Your task to perform on an android device: change your default location settings in chrome Image 0: 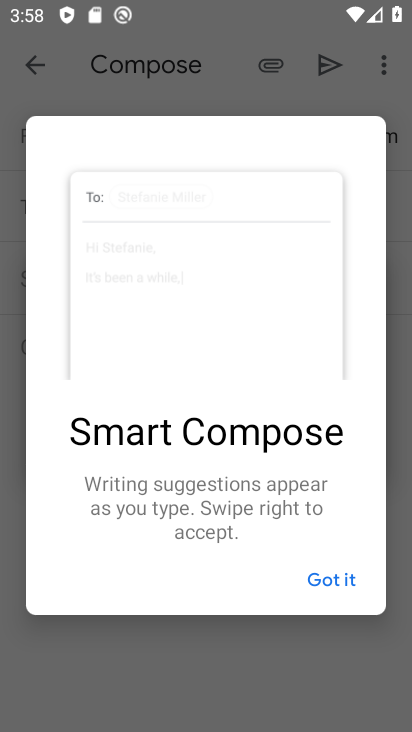
Step 0: press home button
Your task to perform on an android device: change your default location settings in chrome Image 1: 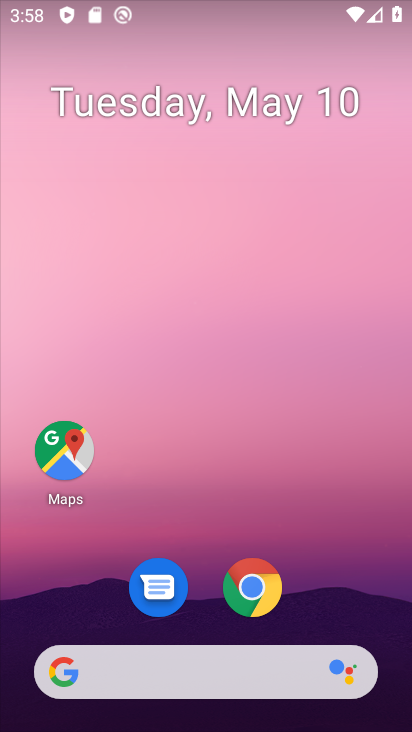
Step 1: drag from (249, 715) to (308, 260)
Your task to perform on an android device: change your default location settings in chrome Image 2: 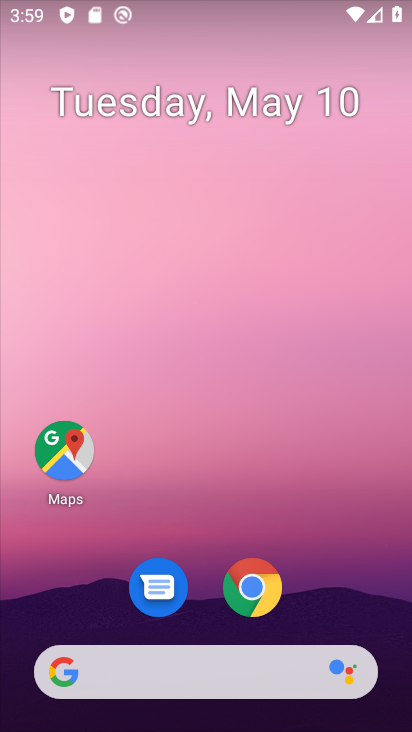
Step 2: drag from (269, 642) to (363, 133)
Your task to perform on an android device: change your default location settings in chrome Image 3: 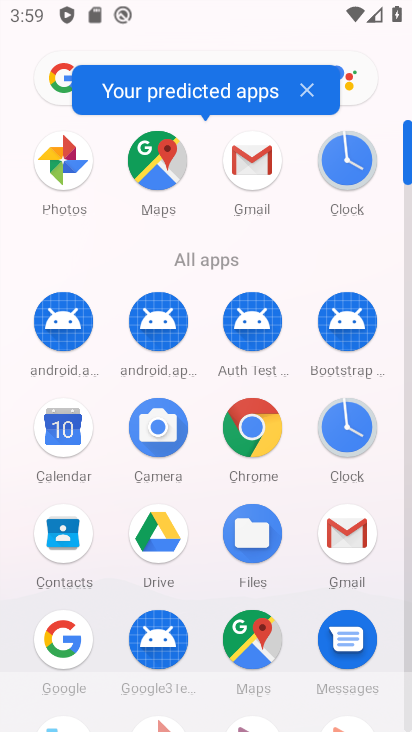
Step 3: click (235, 425)
Your task to perform on an android device: change your default location settings in chrome Image 4: 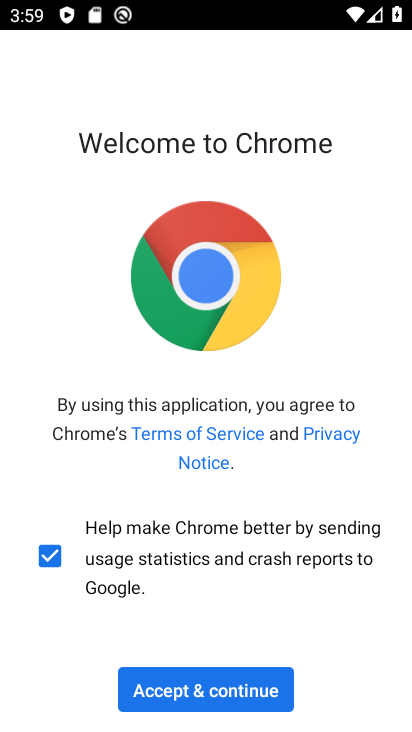
Step 4: click (239, 675)
Your task to perform on an android device: change your default location settings in chrome Image 5: 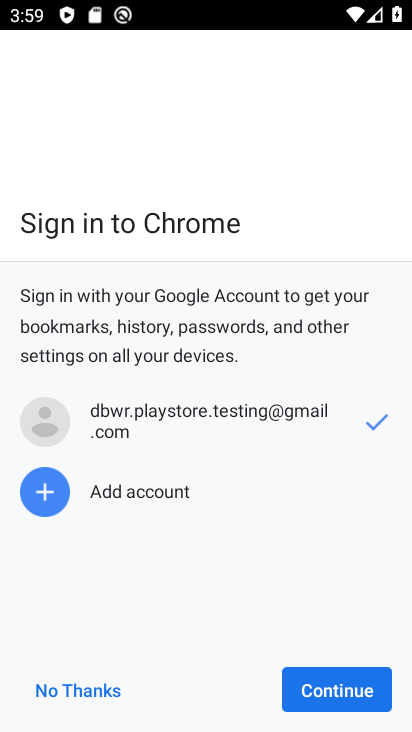
Step 5: click (314, 685)
Your task to perform on an android device: change your default location settings in chrome Image 6: 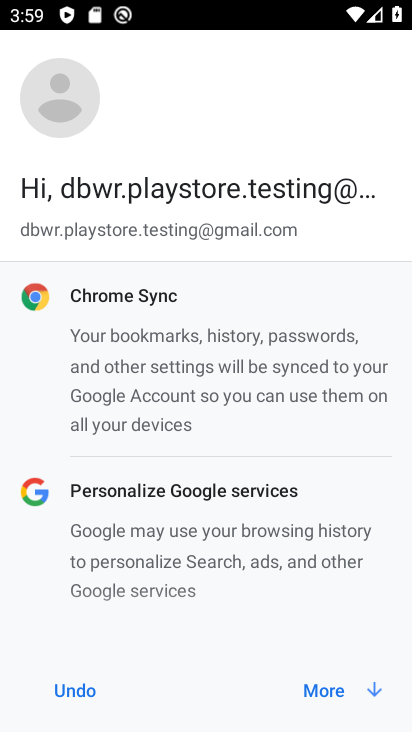
Step 6: click (366, 692)
Your task to perform on an android device: change your default location settings in chrome Image 7: 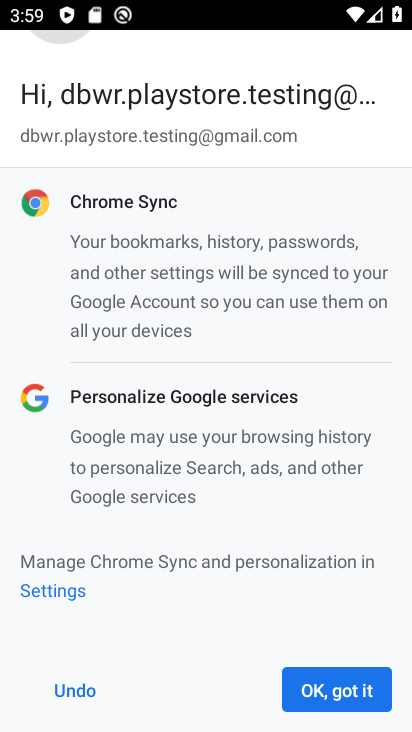
Step 7: click (357, 682)
Your task to perform on an android device: change your default location settings in chrome Image 8: 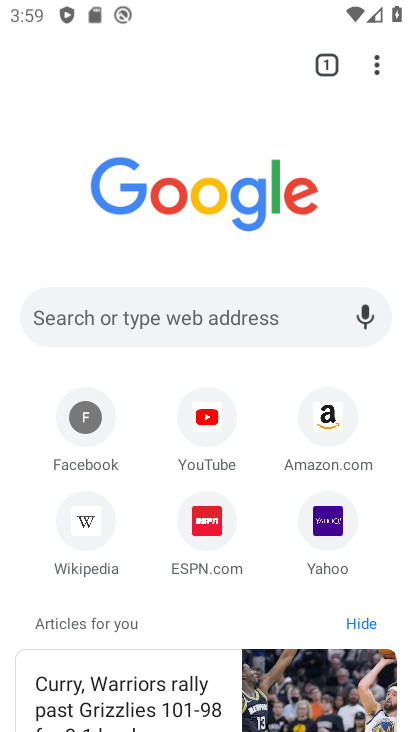
Step 8: click (369, 80)
Your task to perform on an android device: change your default location settings in chrome Image 9: 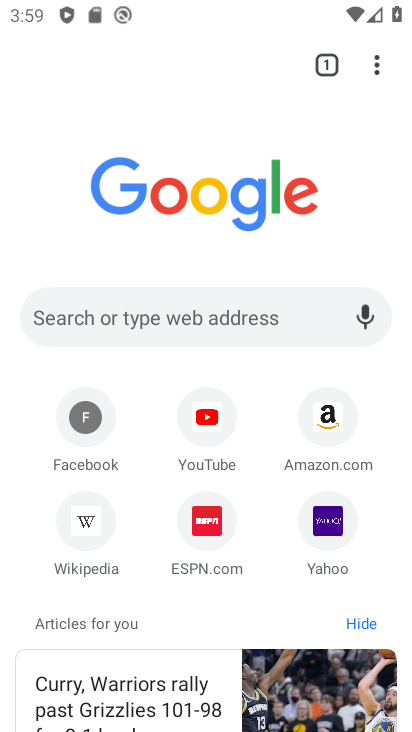
Step 9: click (370, 76)
Your task to perform on an android device: change your default location settings in chrome Image 10: 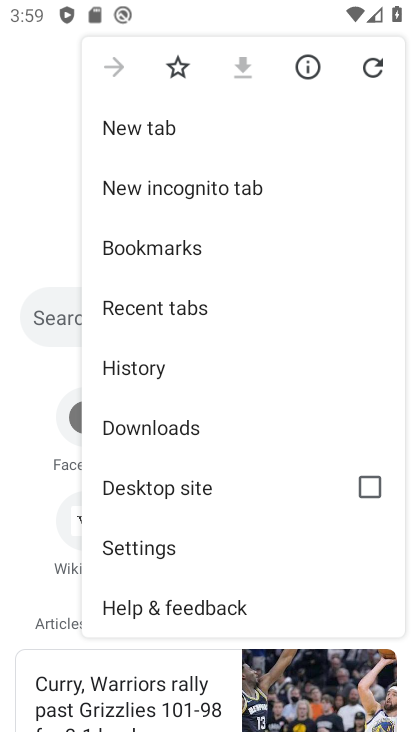
Step 10: click (132, 553)
Your task to perform on an android device: change your default location settings in chrome Image 11: 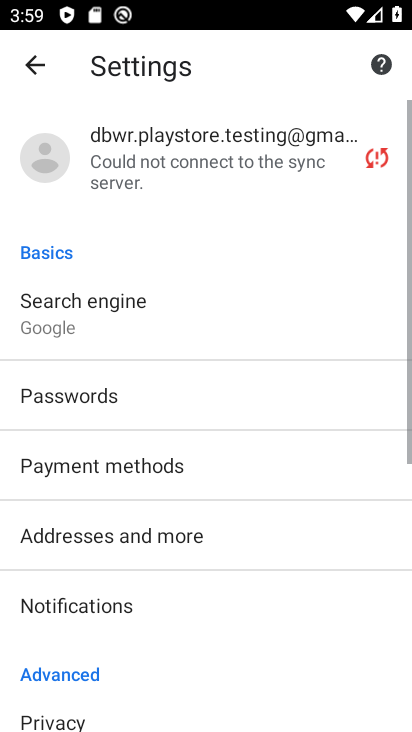
Step 11: drag from (161, 528) to (246, 177)
Your task to perform on an android device: change your default location settings in chrome Image 12: 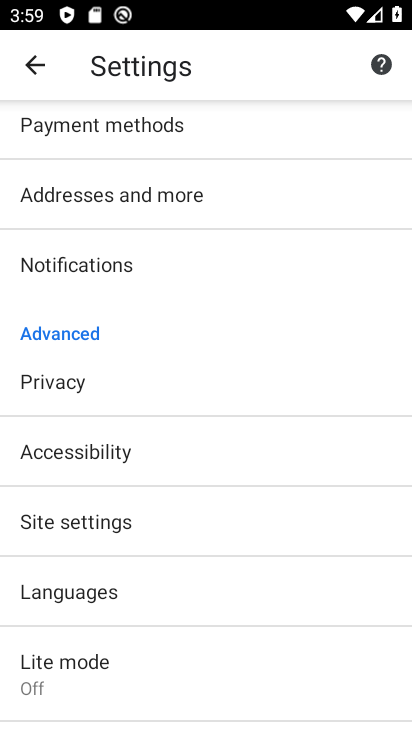
Step 12: click (123, 519)
Your task to perform on an android device: change your default location settings in chrome Image 13: 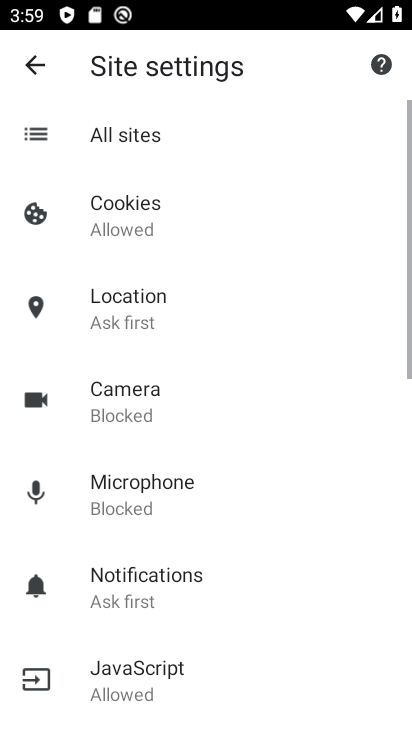
Step 13: click (150, 306)
Your task to perform on an android device: change your default location settings in chrome Image 14: 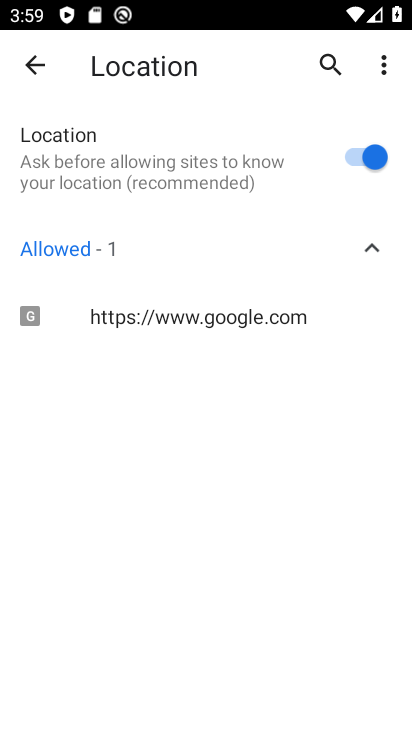
Step 14: click (341, 171)
Your task to perform on an android device: change your default location settings in chrome Image 15: 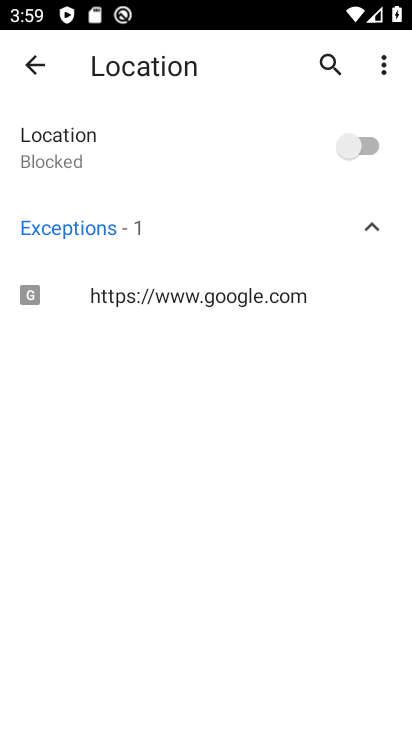
Step 15: task complete